Your task to perform on an android device: turn smart compose on in the gmail app Image 0: 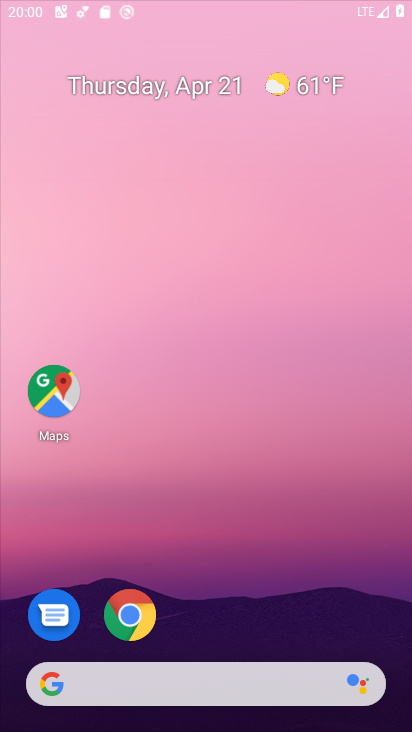
Step 0: drag from (406, 253) to (127, 2)
Your task to perform on an android device: turn smart compose on in the gmail app Image 1: 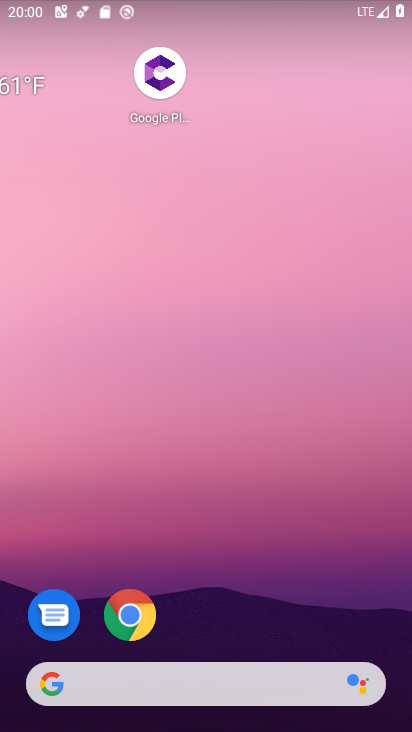
Step 1: drag from (223, 586) to (327, 209)
Your task to perform on an android device: turn smart compose on in the gmail app Image 2: 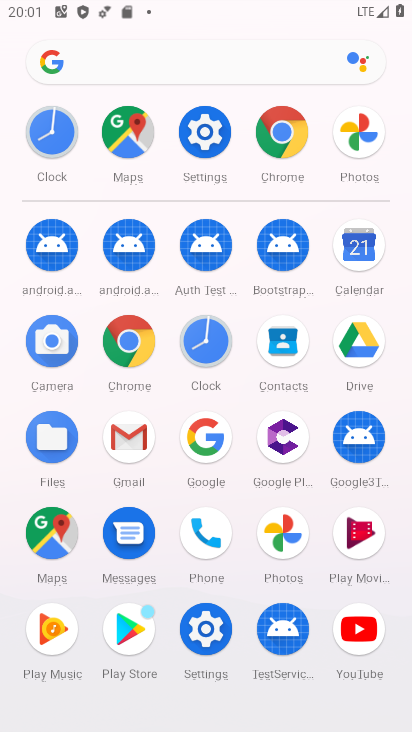
Step 2: click (120, 444)
Your task to perform on an android device: turn smart compose on in the gmail app Image 3: 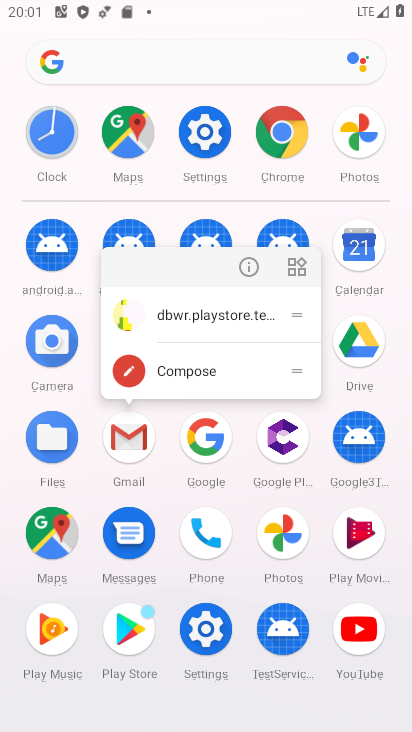
Step 3: click (241, 260)
Your task to perform on an android device: turn smart compose on in the gmail app Image 4: 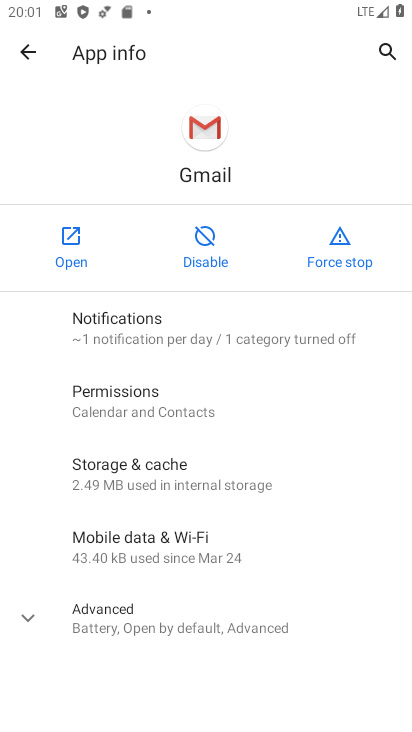
Step 4: click (65, 252)
Your task to perform on an android device: turn smart compose on in the gmail app Image 5: 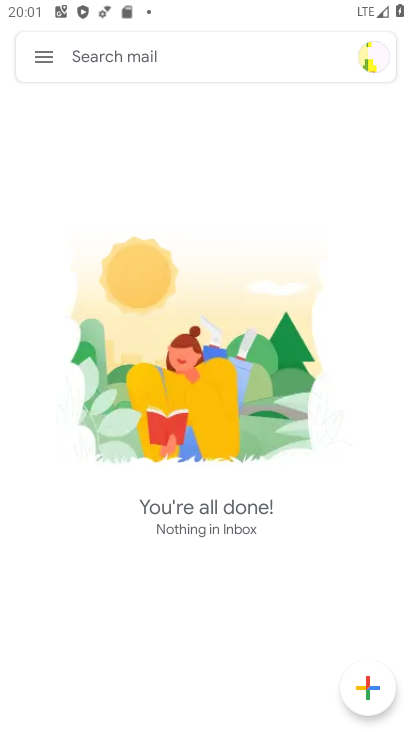
Step 5: click (35, 54)
Your task to perform on an android device: turn smart compose on in the gmail app Image 6: 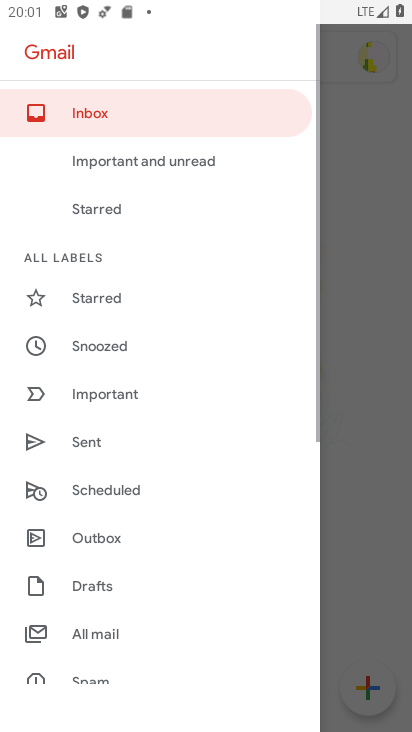
Step 6: drag from (138, 589) to (234, 21)
Your task to perform on an android device: turn smart compose on in the gmail app Image 7: 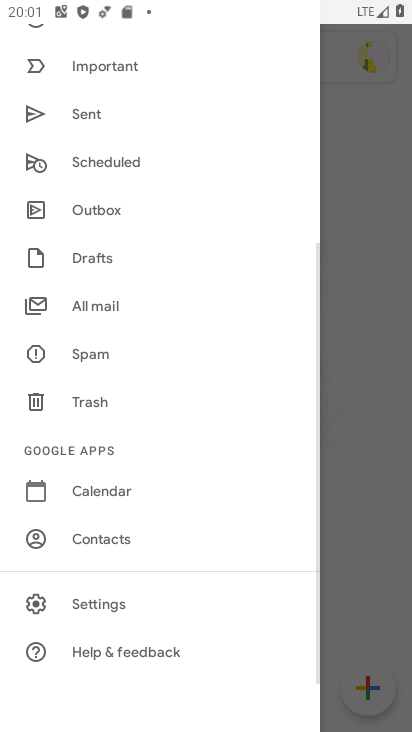
Step 7: click (112, 616)
Your task to perform on an android device: turn smart compose on in the gmail app Image 8: 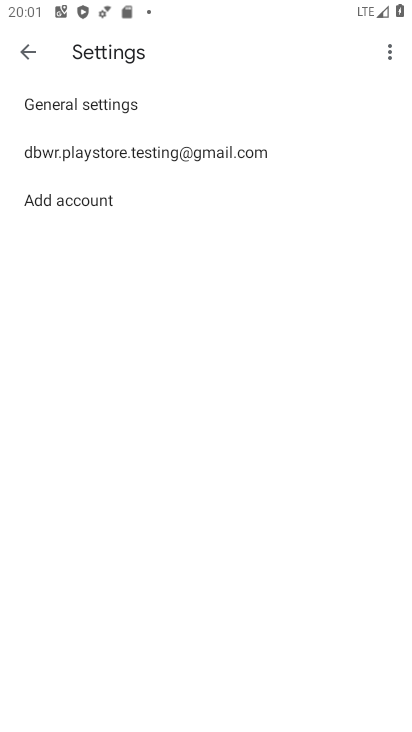
Step 8: drag from (136, 578) to (154, 6)
Your task to perform on an android device: turn smart compose on in the gmail app Image 9: 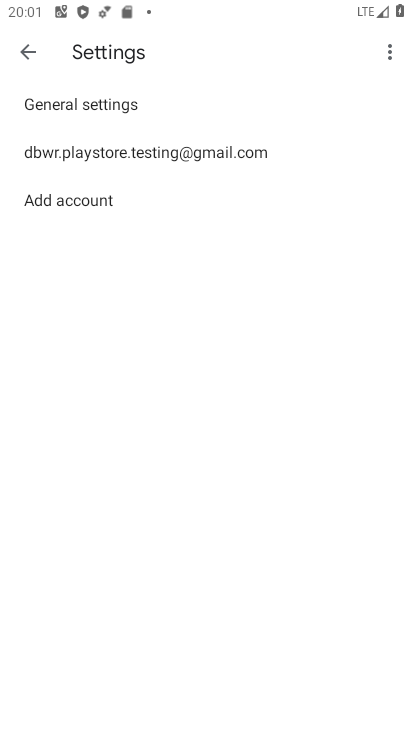
Step 9: click (129, 153)
Your task to perform on an android device: turn smart compose on in the gmail app Image 10: 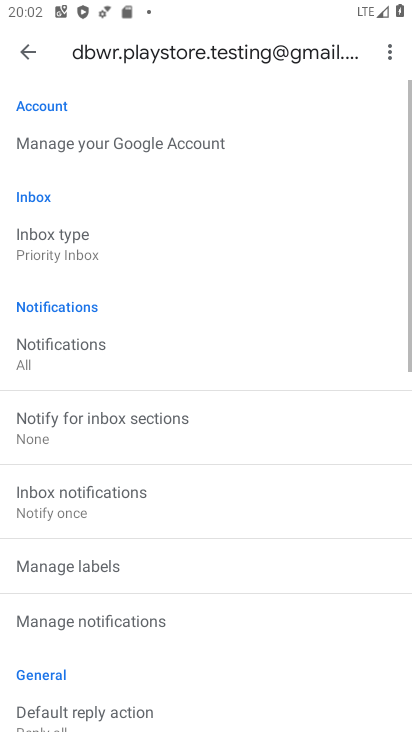
Step 10: drag from (177, 534) to (232, 160)
Your task to perform on an android device: turn smart compose on in the gmail app Image 11: 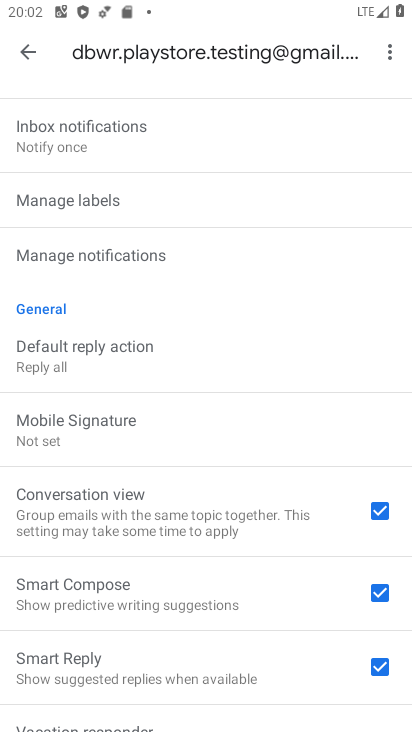
Step 11: click (140, 247)
Your task to perform on an android device: turn smart compose on in the gmail app Image 12: 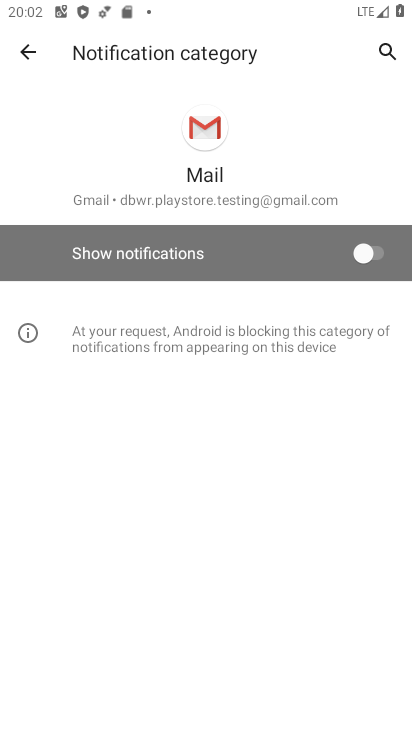
Step 12: click (40, 51)
Your task to perform on an android device: turn smart compose on in the gmail app Image 13: 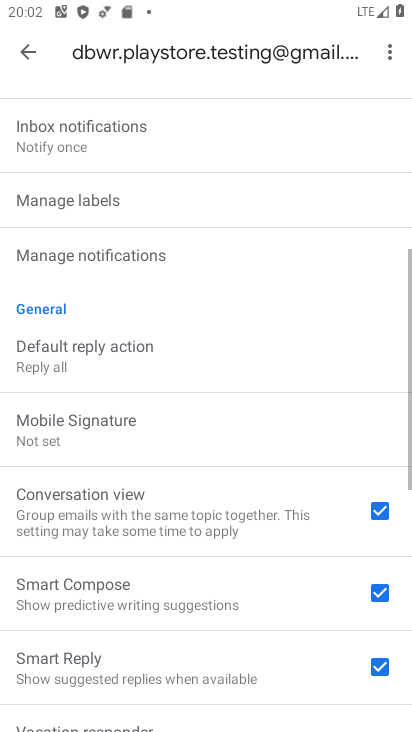
Step 13: task complete